Your task to perform on an android device: Open privacy settings Image 0: 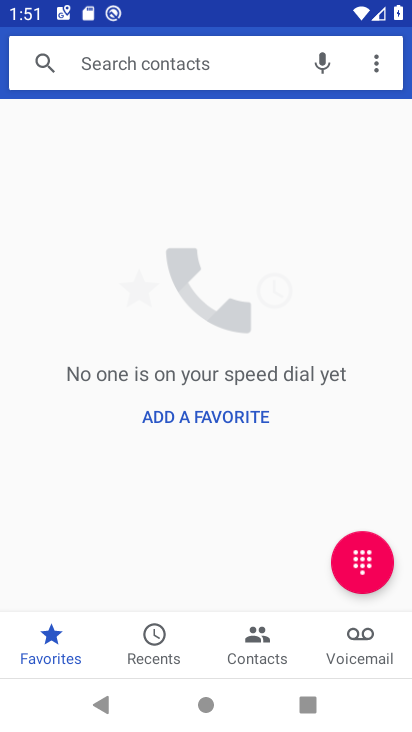
Step 0: press home button
Your task to perform on an android device: Open privacy settings Image 1: 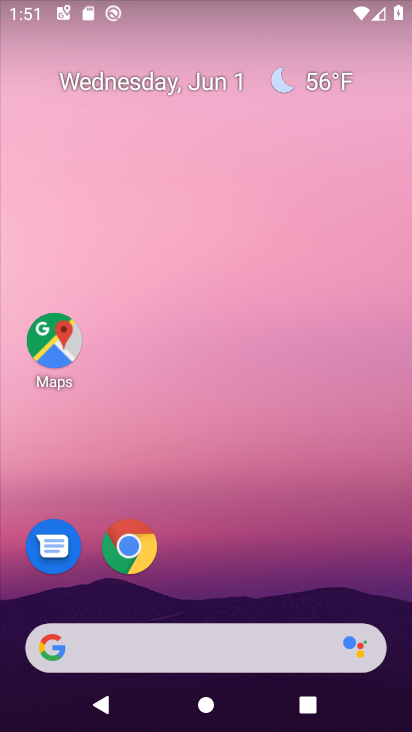
Step 1: drag from (153, 707) to (181, 108)
Your task to perform on an android device: Open privacy settings Image 2: 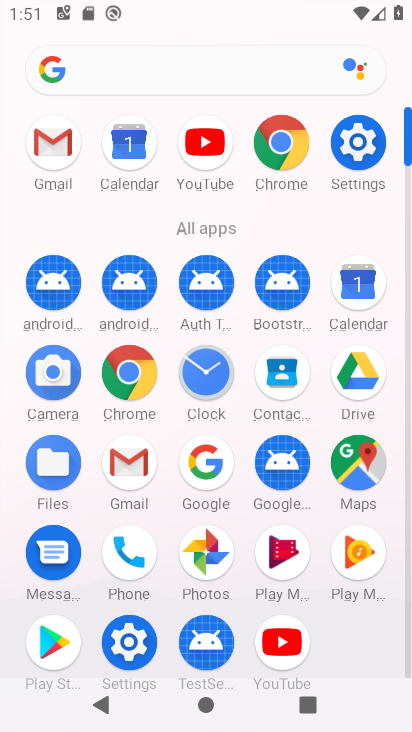
Step 2: click (364, 169)
Your task to perform on an android device: Open privacy settings Image 3: 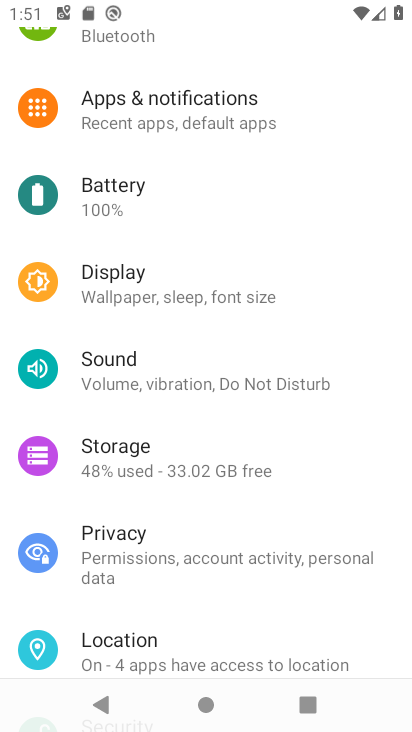
Step 3: click (170, 563)
Your task to perform on an android device: Open privacy settings Image 4: 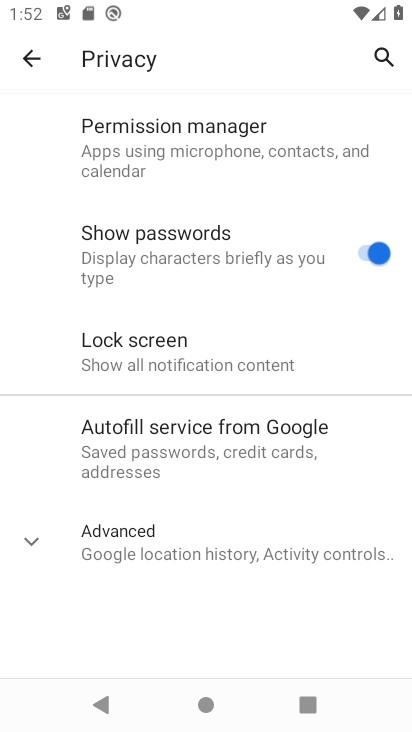
Step 4: task complete